Your task to perform on an android device: turn off priority inbox in the gmail app Image 0: 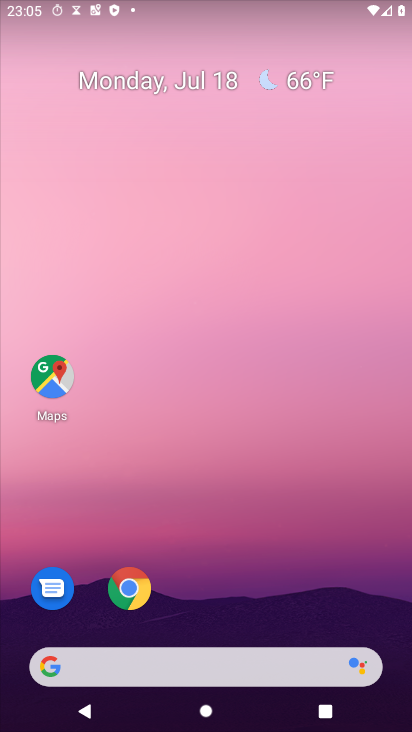
Step 0: press home button
Your task to perform on an android device: turn off priority inbox in the gmail app Image 1: 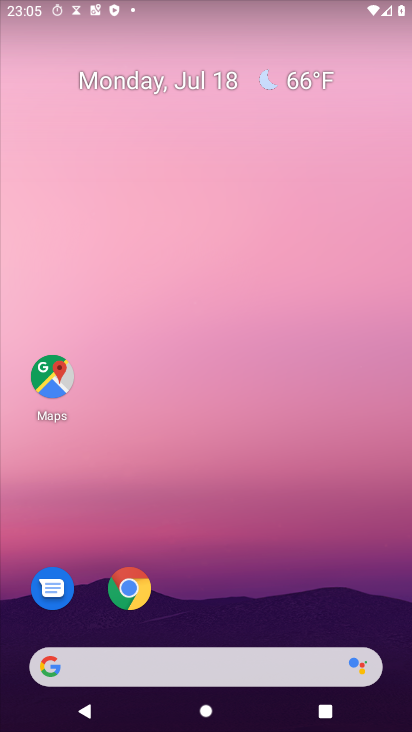
Step 1: drag from (193, 657) to (302, 136)
Your task to perform on an android device: turn off priority inbox in the gmail app Image 2: 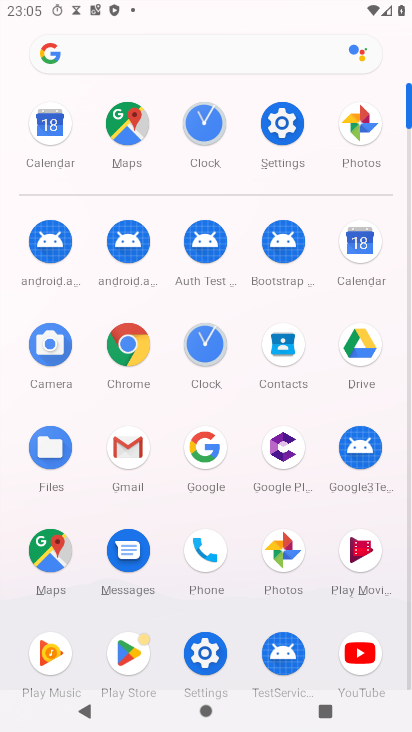
Step 2: click (136, 454)
Your task to perform on an android device: turn off priority inbox in the gmail app Image 3: 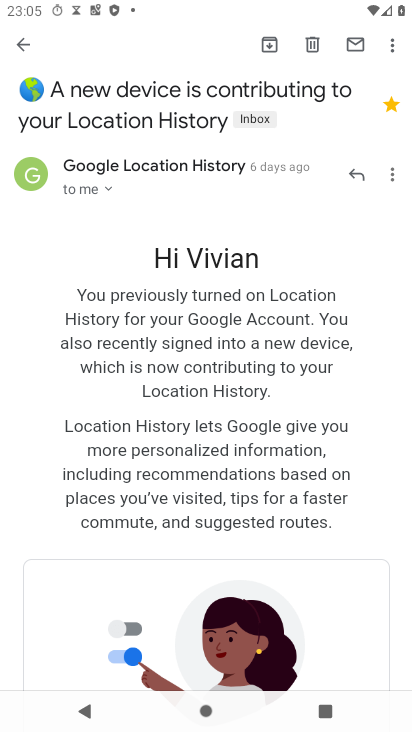
Step 3: click (27, 40)
Your task to perform on an android device: turn off priority inbox in the gmail app Image 4: 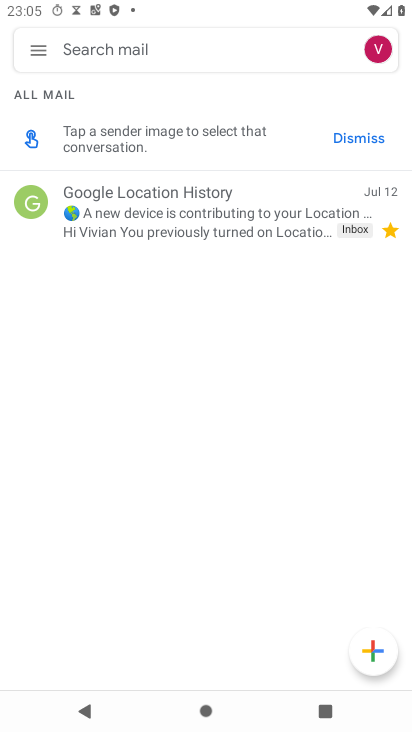
Step 4: click (40, 54)
Your task to perform on an android device: turn off priority inbox in the gmail app Image 5: 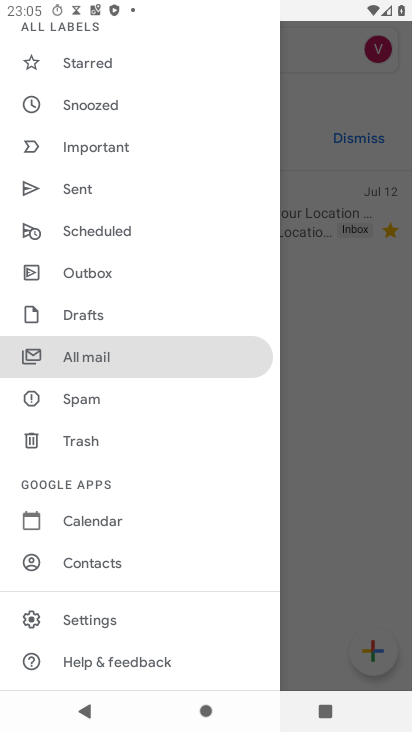
Step 5: click (112, 617)
Your task to perform on an android device: turn off priority inbox in the gmail app Image 6: 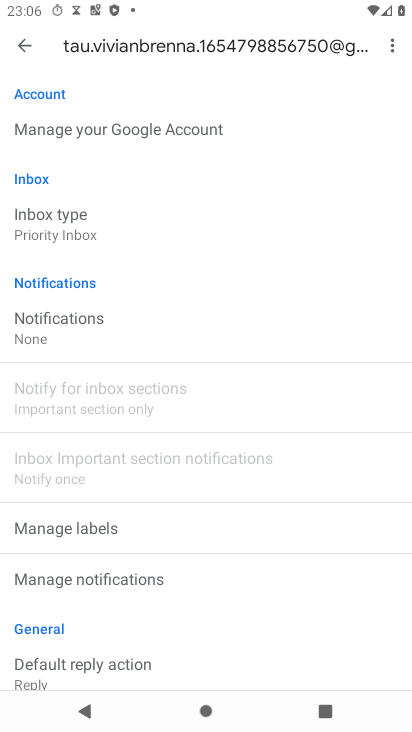
Step 6: click (32, 230)
Your task to perform on an android device: turn off priority inbox in the gmail app Image 7: 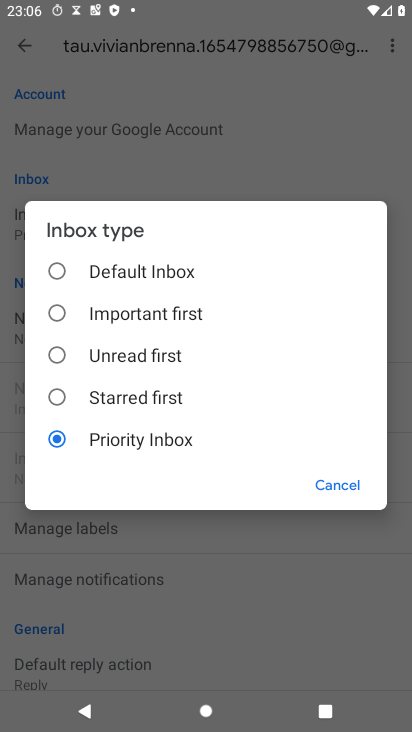
Step 7: click (55, 273)
Your task to perform on an android device: turn off priority inbox in the gmail app Image 8: 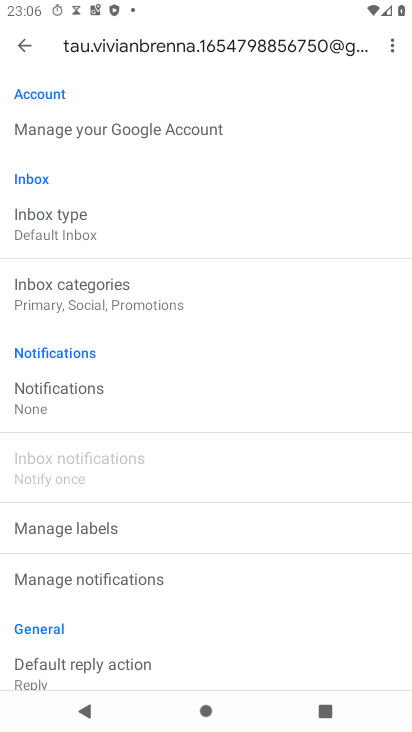
Step 8: task complete